Your task to perform on an android device: What's the weather? Image 0: 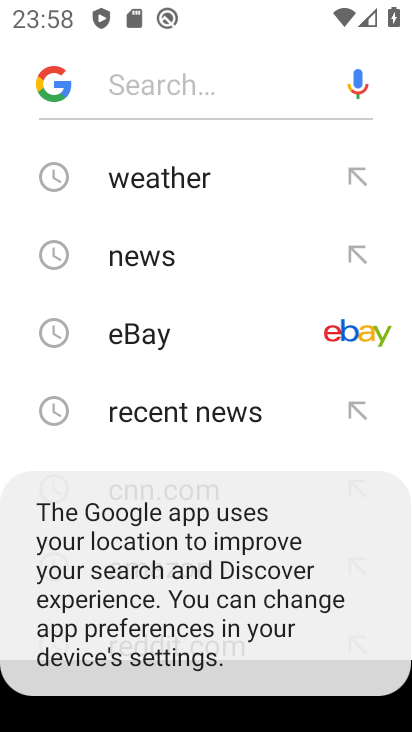
Step 0: press home button
Your task to perform on an android device: What's the weather? Image 1: 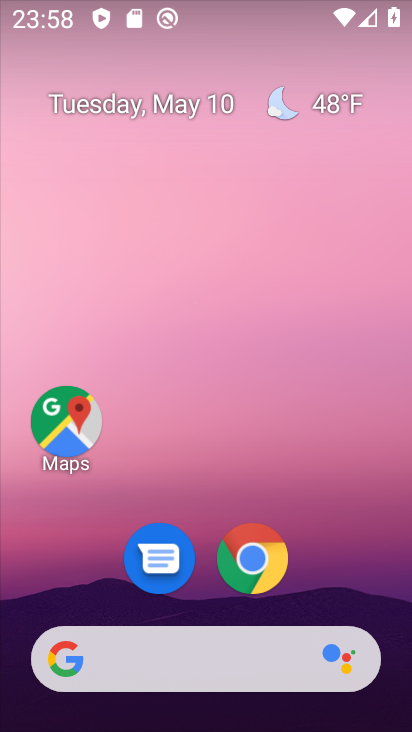
Step 1: drag from (360, 557) to (370, 132)
Your task to perform on an android device: What's the weather? Image 2: 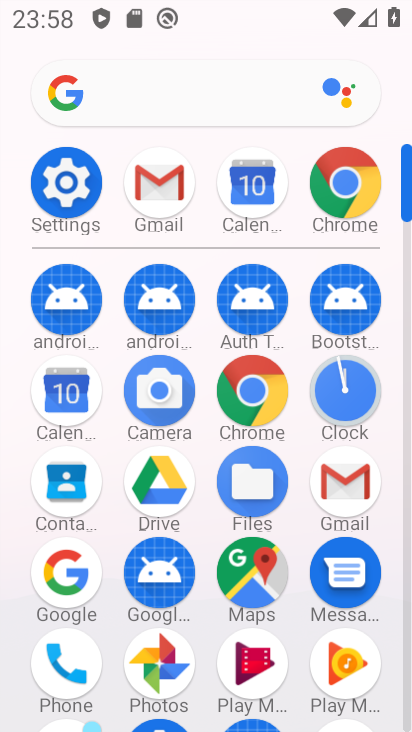
Step 2: click (256, 409)
Your task to perform on an android device: What's the weather? Image 3: 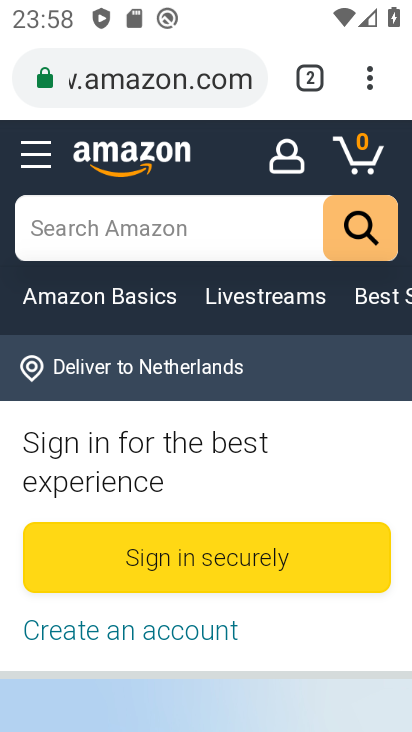
Step 3: click (177, 76)
Your task to perform on an android device: What's the weather? Image 4: 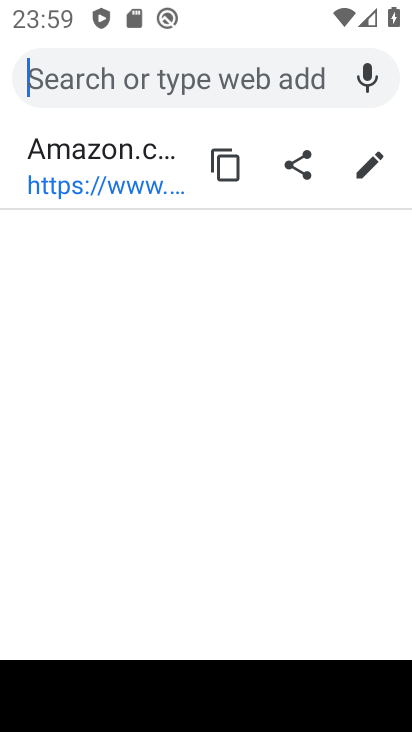
Step 4: type "what's the weather"
Your task to perform on an android device: What's the weather? Image 5: 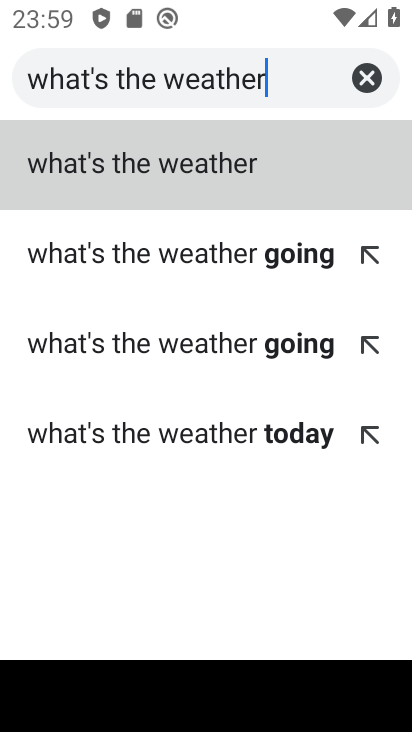
Step 5: click (137, 163)
Your task to perform on an android device: What's the weather? Image 6: 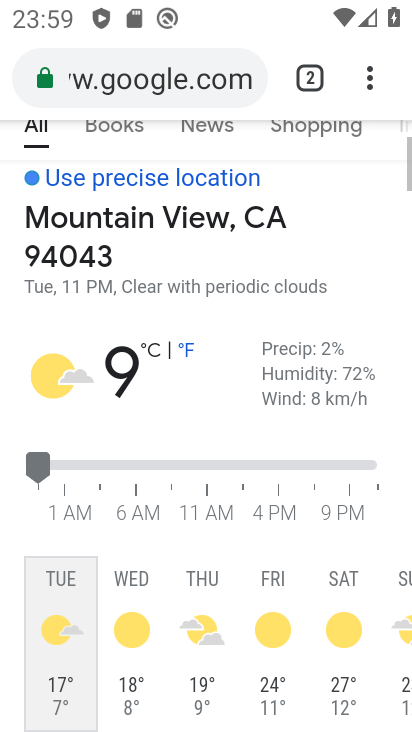
Step 6: task complete